Your task to perform on an android device: Search for "logitech g pro" on ebay.com, select the first entry, add it to the cart, then select checkout. Image 0: 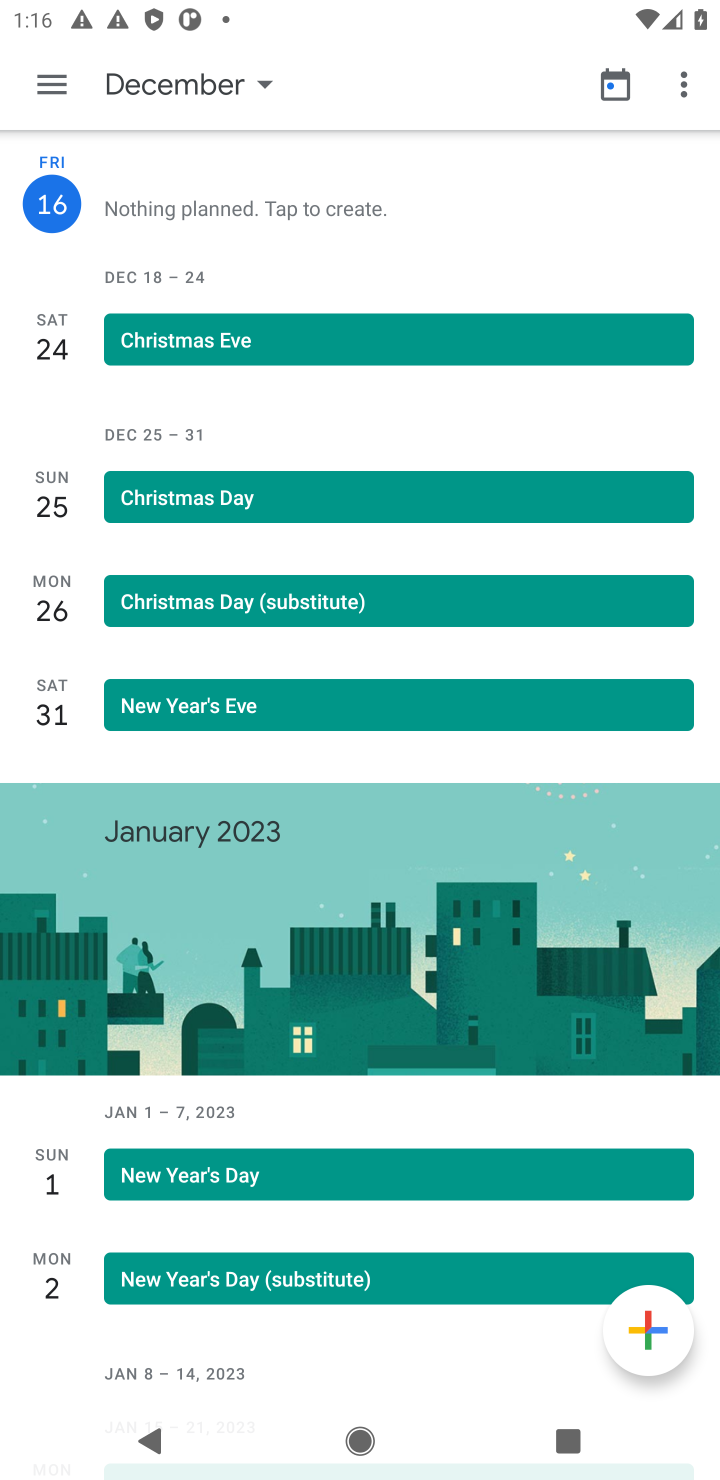
Step 0: press home button
Your task to perform on an android device: Search for "logitech g pro" on ebay.com, select the first entry, add it to the cart, then select checkout. Image 1: 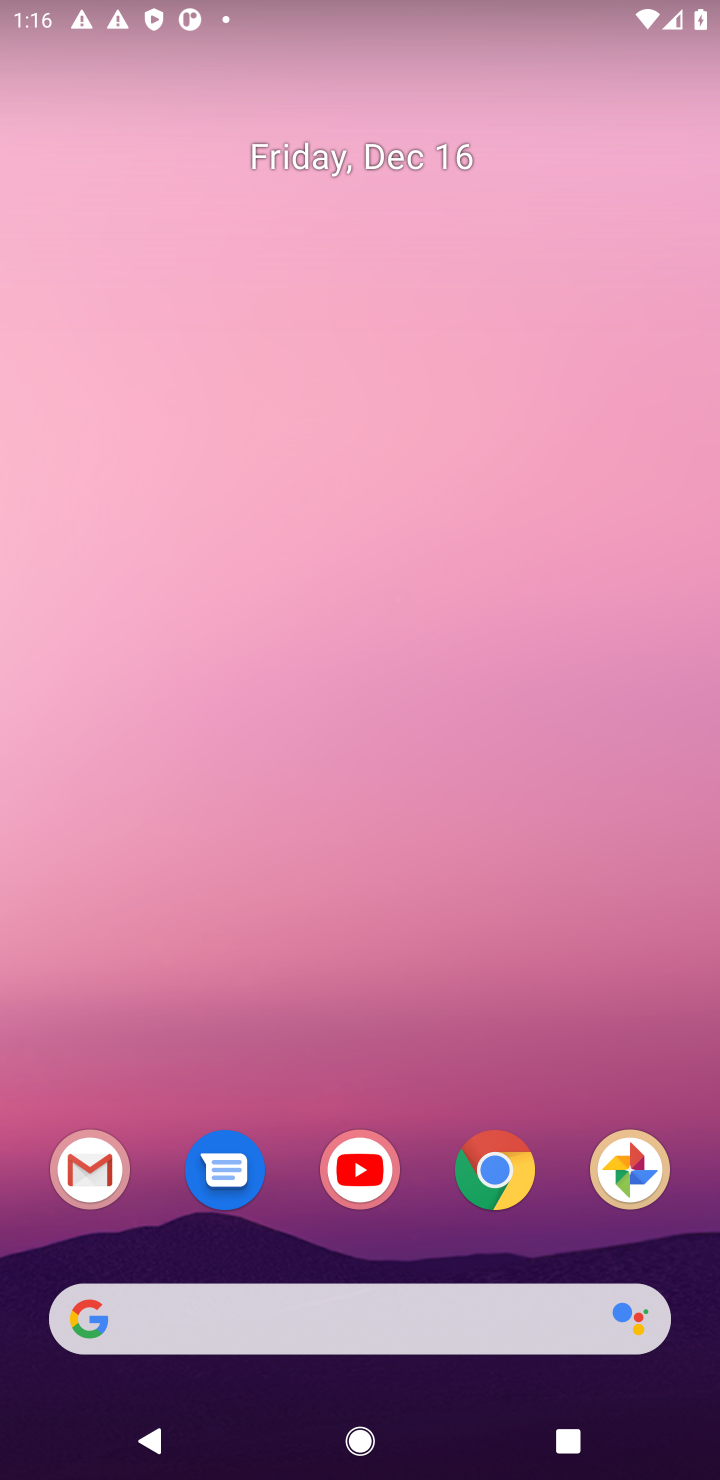
Step 1: click (502, 1178)
Your task to perform on an android device: Search for "logitech g pro" on ebay.com, select the first entry, add it to the cart, then select checkout. Image 2: 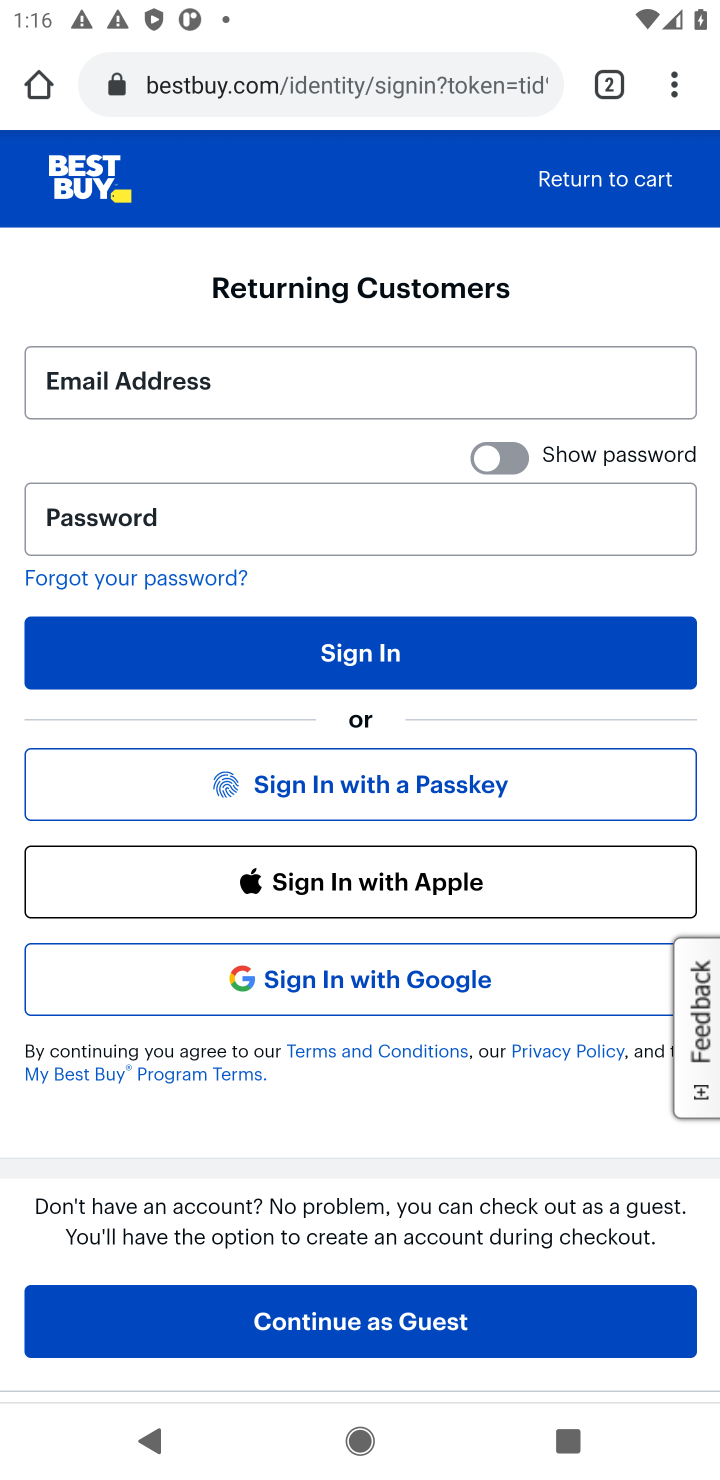
Step 2: click (247, 89)
Your task to perform on an android device: Search for "logitech g pro" on ebay.com, select the first entry, add it to the cart, then select checkout. Image 3: 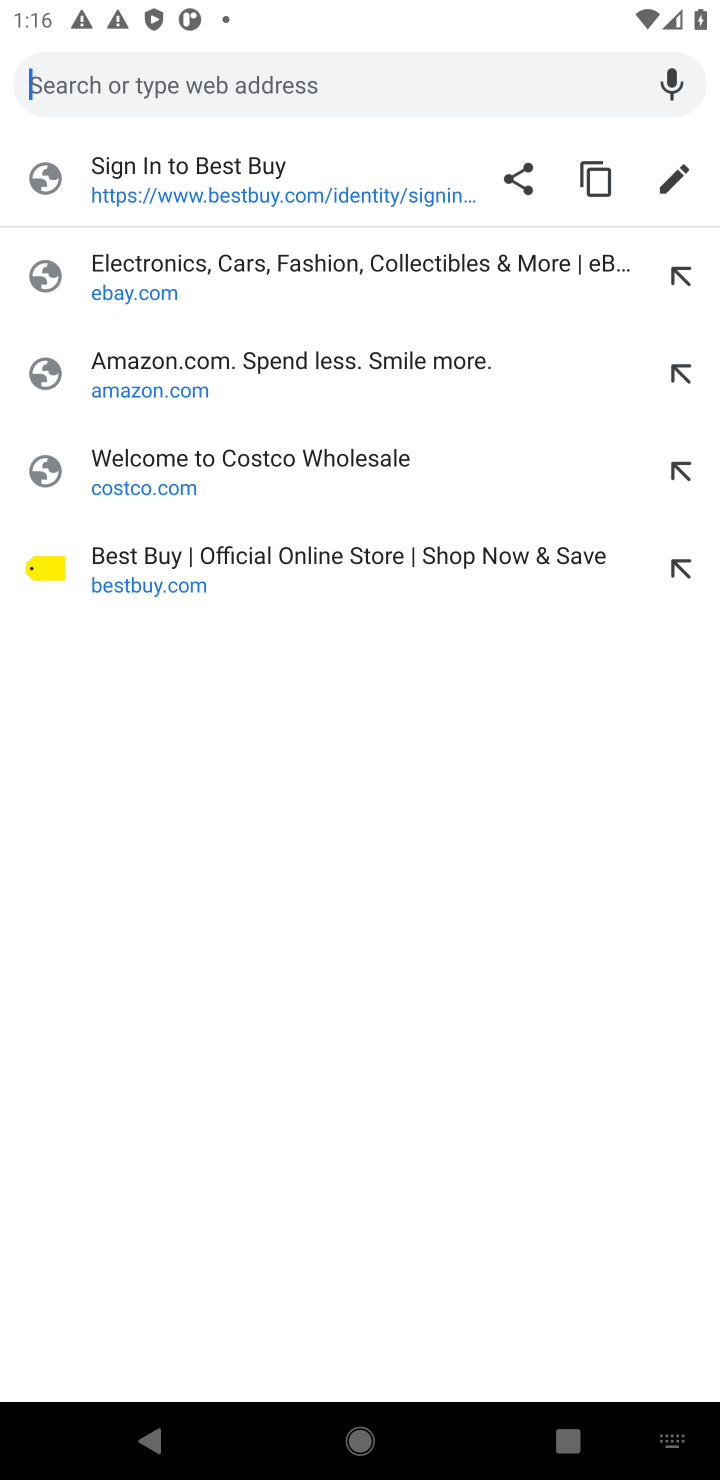
Step 3: click (150, 283)
Your task to perform on an android device: Search for "logitech g pro" on ebay.com, select the first entry, add it to the cart, then select checkout. Image 4: 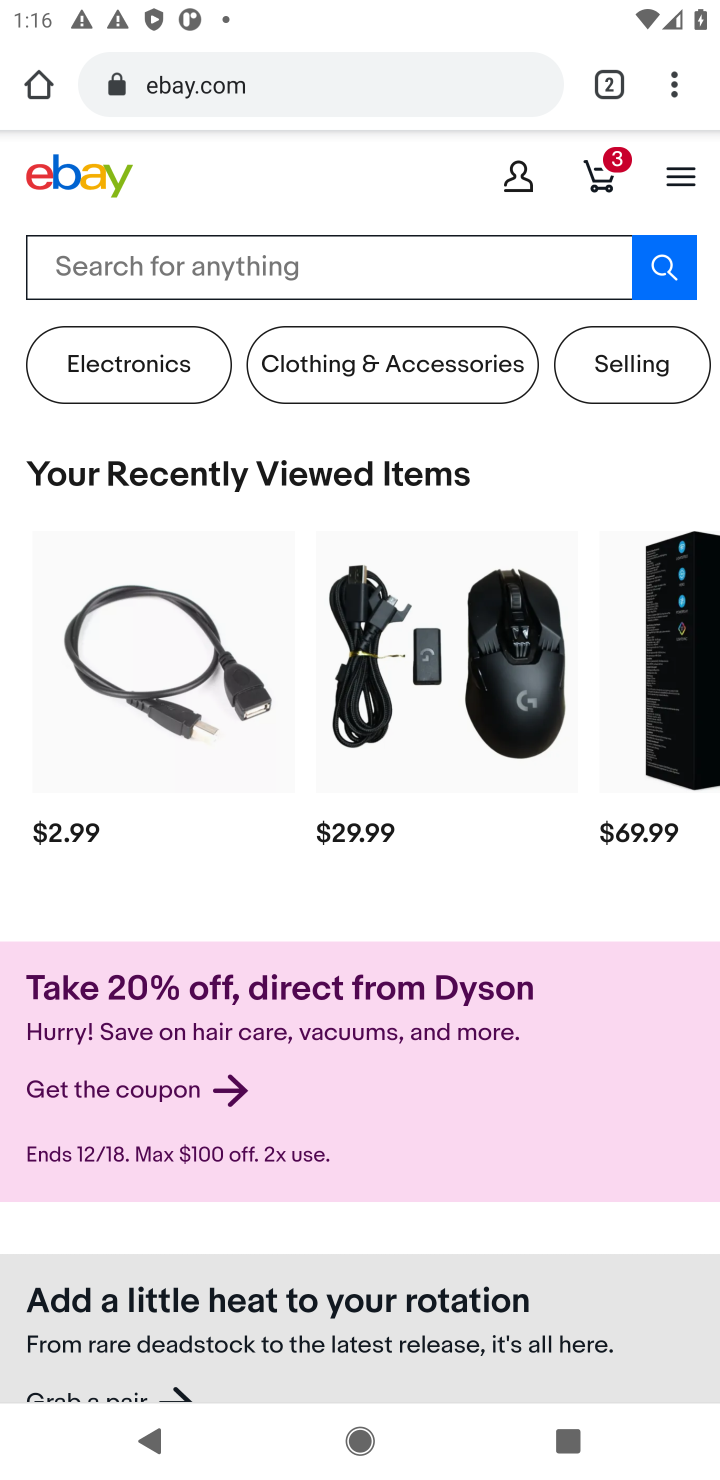
Step 4: click (139, 268)
Your task to perform on an android device: Search for "logitech g pro" on ebay.com, select the first entry, add it to the cart, then select checkout. Image 5: 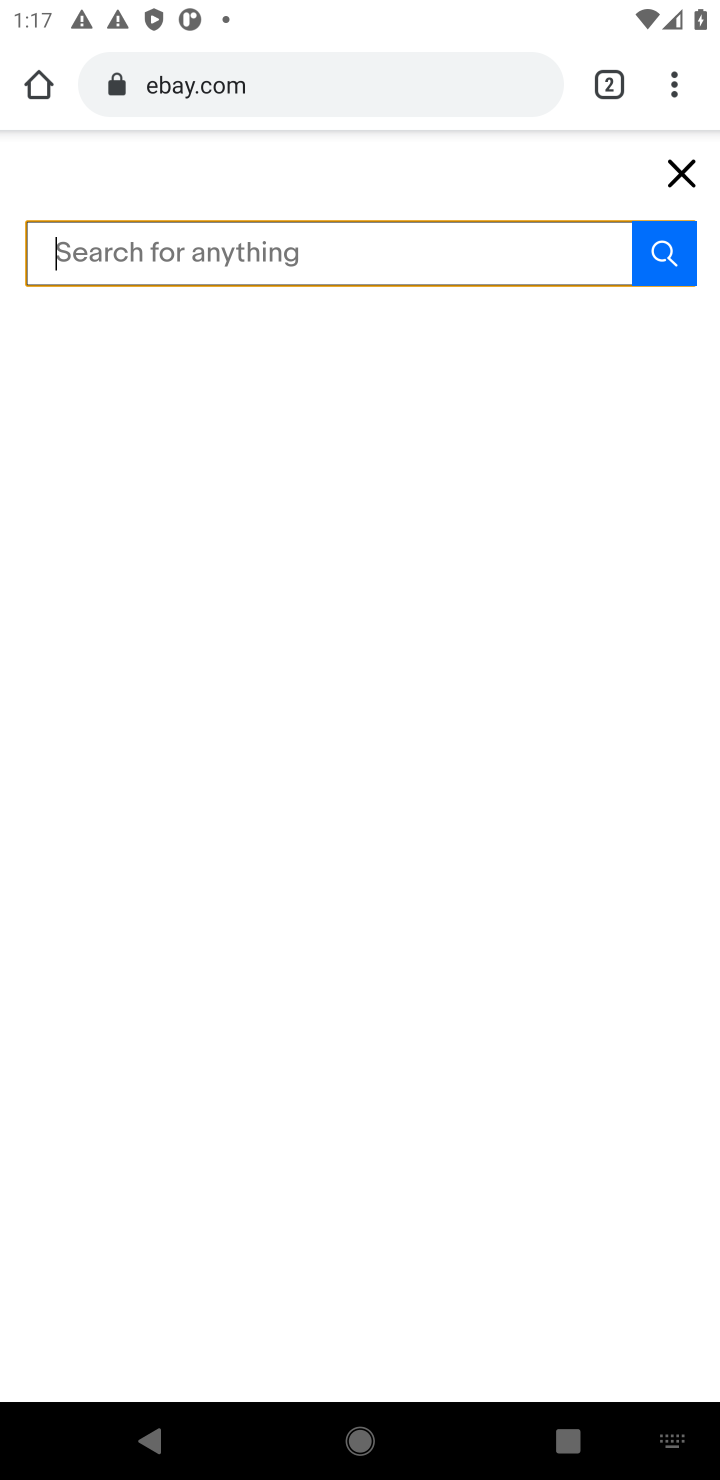
Step 5: type "logitech g pro"
Your task to perform on an android device: Search for "logitech g pro" on ebay.com, select the first entry, add it to the cart, then select checkout. Image 6: 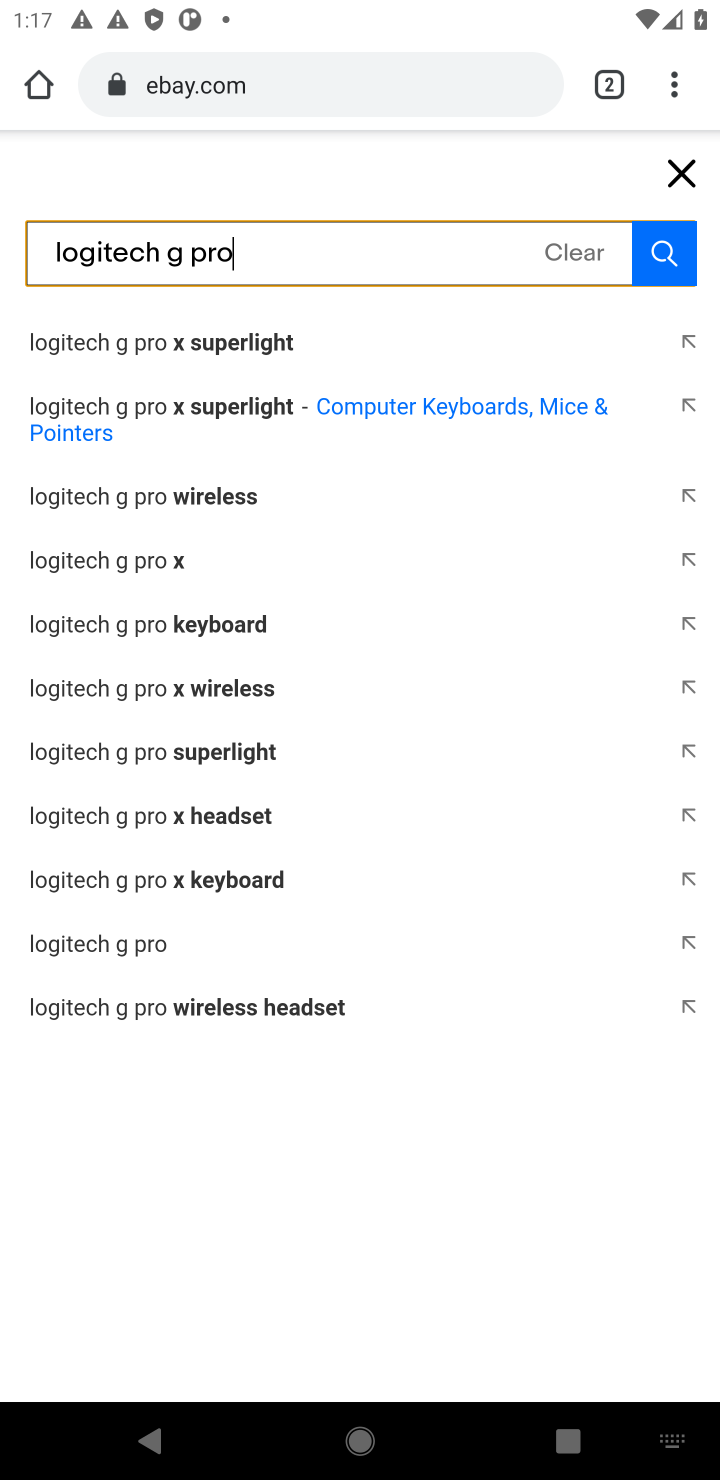
Step 6: click (123, 948)
Your task to perform on an android device: Search for "logitech g pro" on ebay.com, select the first entry, add it to the cart, then select checkout. Image 7: 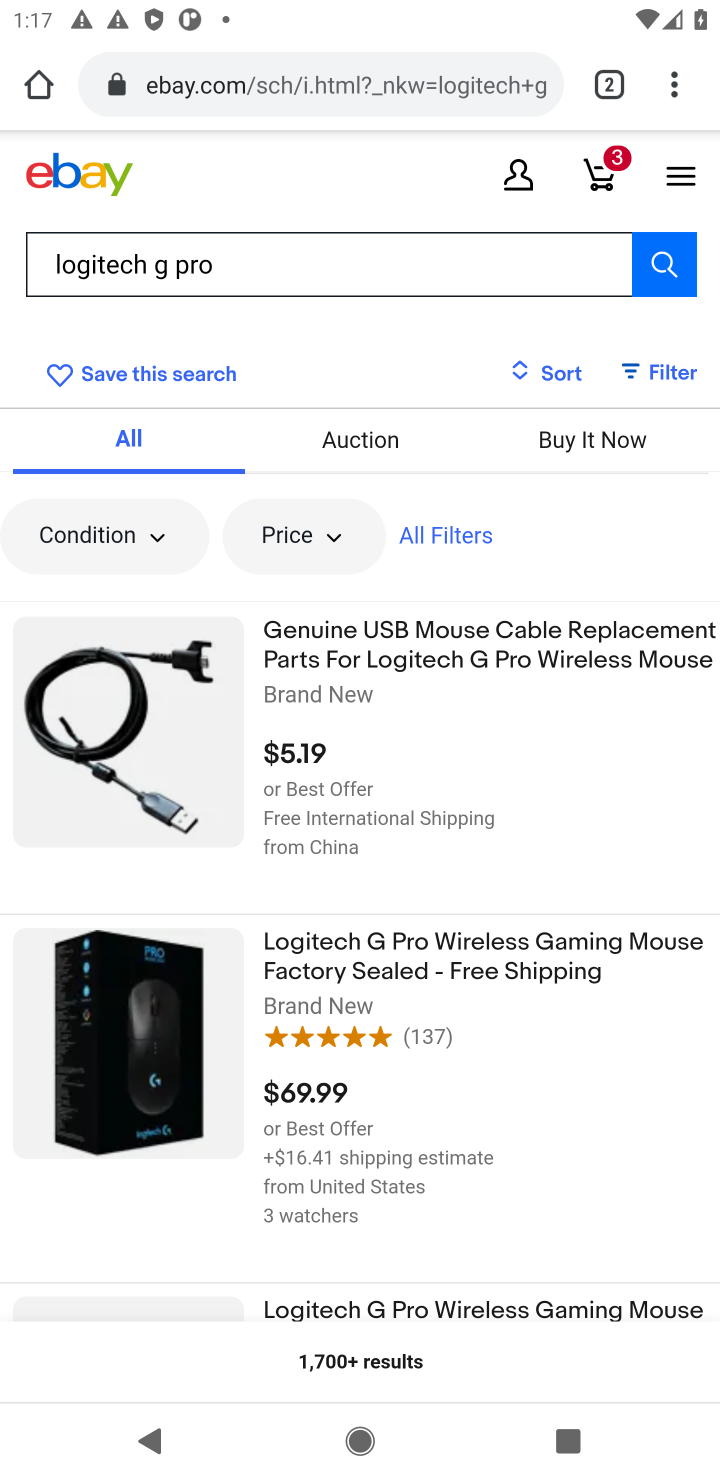
Step 7: click (330, 675)
Your task to perform on an android device: Search for "logitech g pro" on ebay.com, select the first entry, add it to the cart, then select checkout. Image 8: 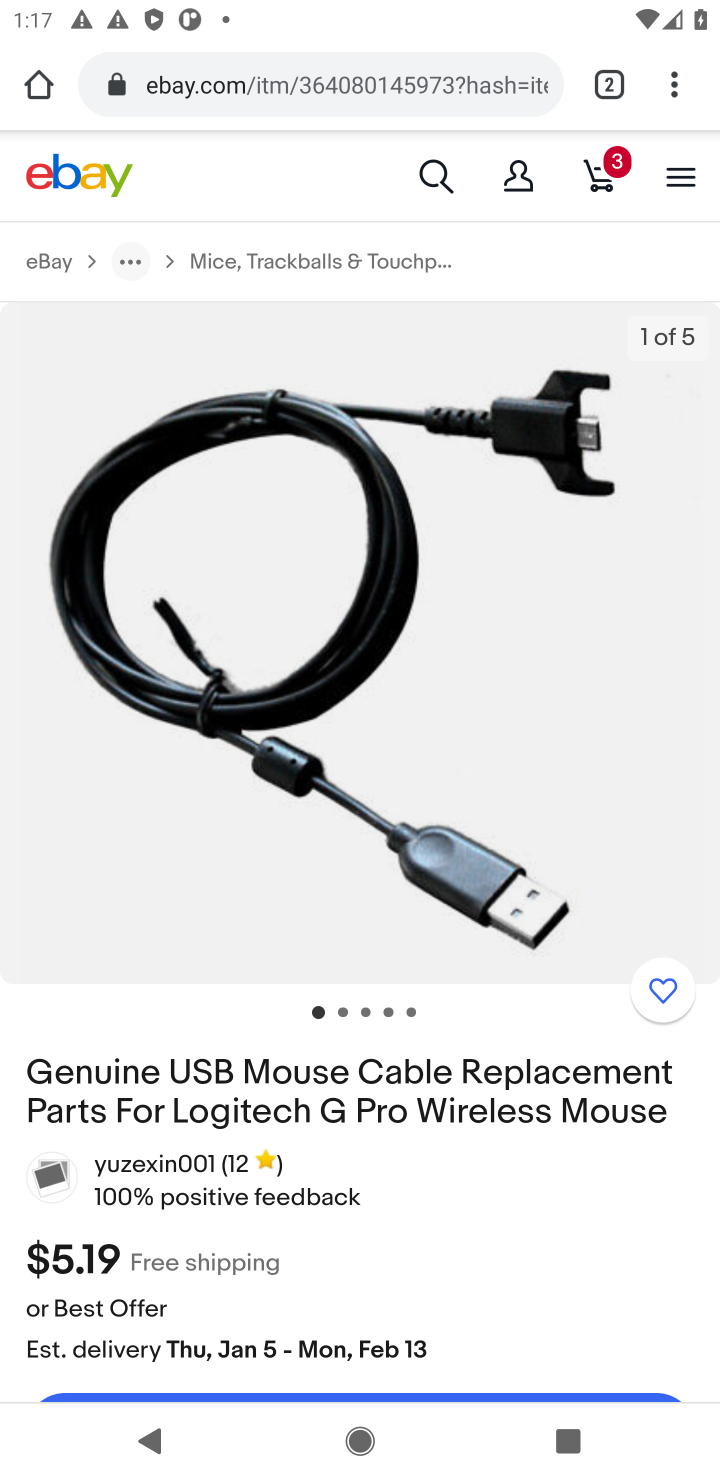
Step 8: drag from (300, 1066) to (280, 562)
Your task to perform on an android device: Search for "logitech g pro" on ebay.com, select the first entry, add it to the cart, then select checkout. Image 9: 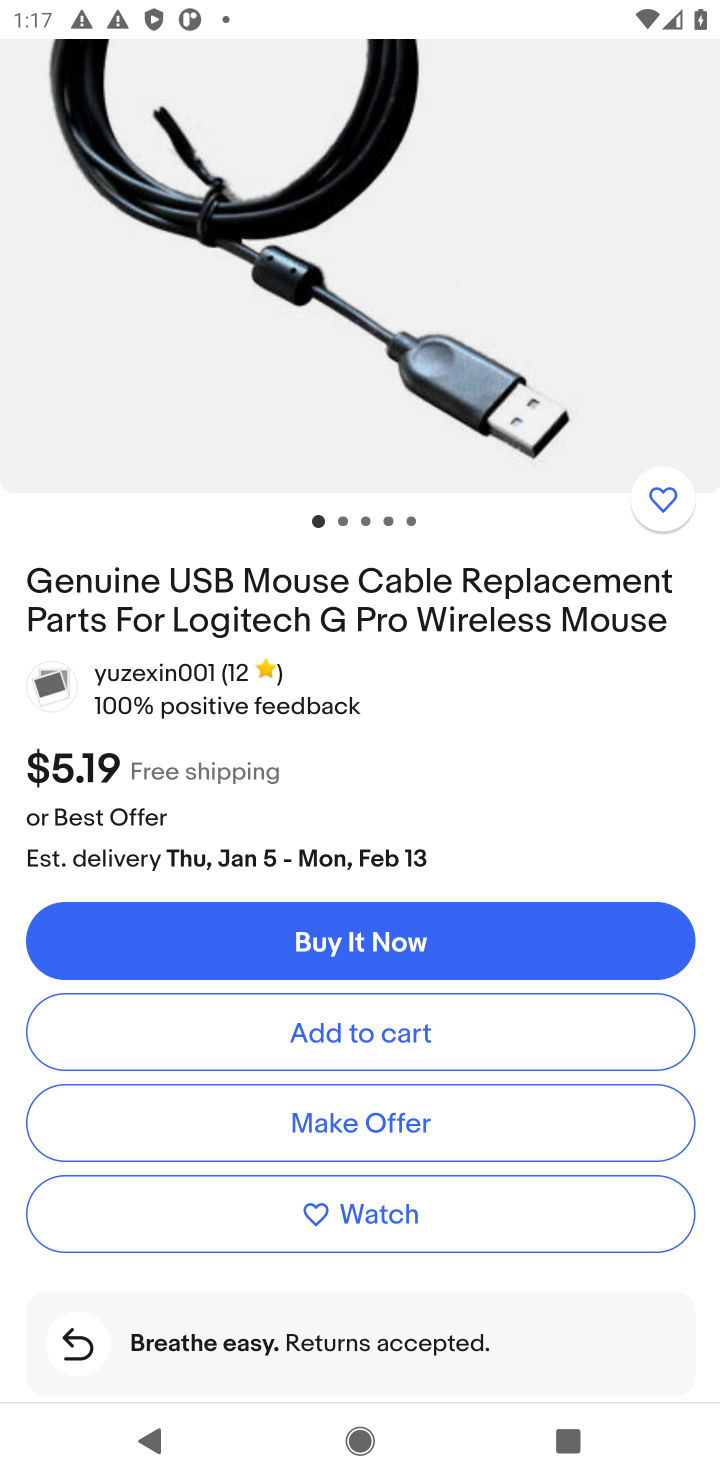
Step 9: click (341, 1026)
Your task to perform on an android device: Search for "logitech g pro" on ebay.com, select the first entry, add it to the cart, then select checkout. Image 10: 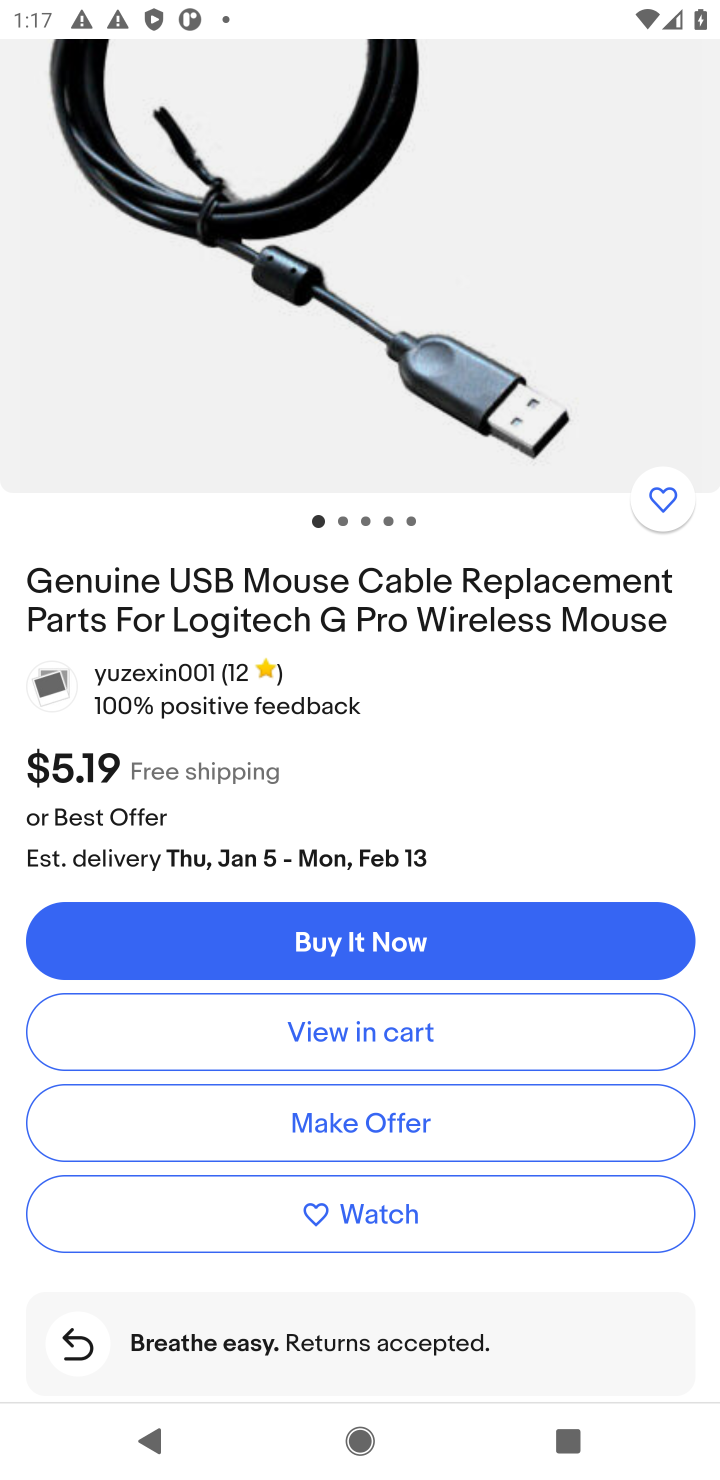
Step 10: click (341, 1026)
Your task to perform on an android device: Search for "logitech g pro" on ebay.com, select the first entry, add it to the cart, then select checkout. Image 11: 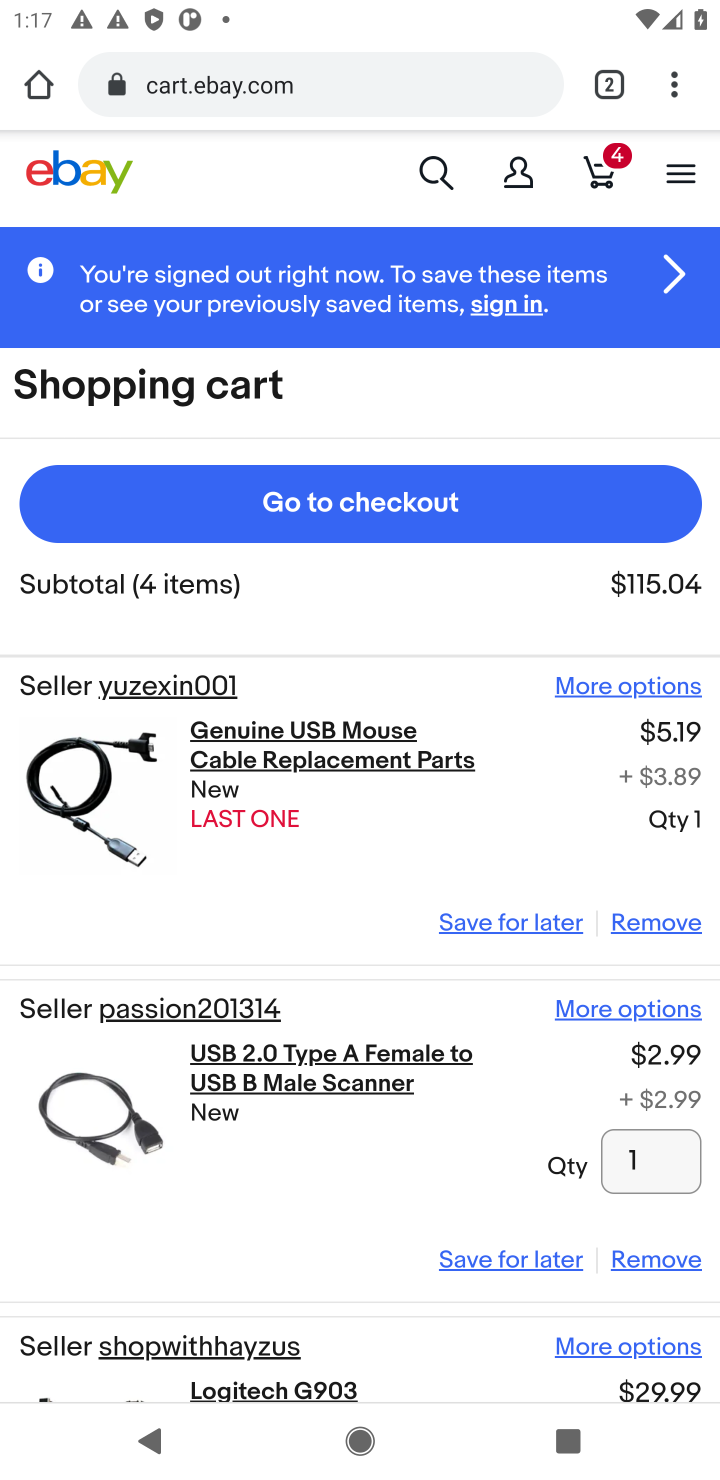
Step 11: click (406, 512)
Your task to perform on an android device: Search for "logitech g pro" on ebay.com, select the first entry, add it to the cart, then select checkout. Image 12: 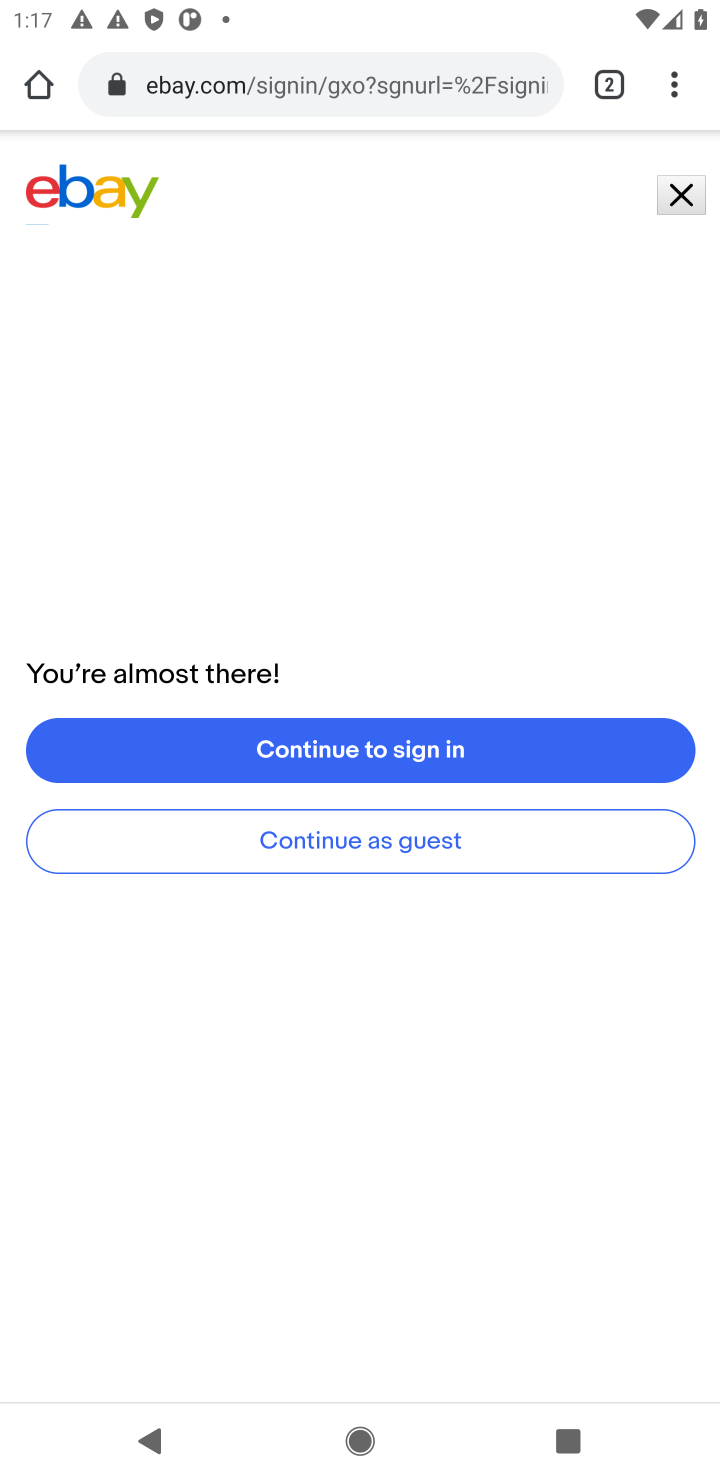
Step 12: task complete